Your task to perform on an android device: change keyboard looks Image 0: 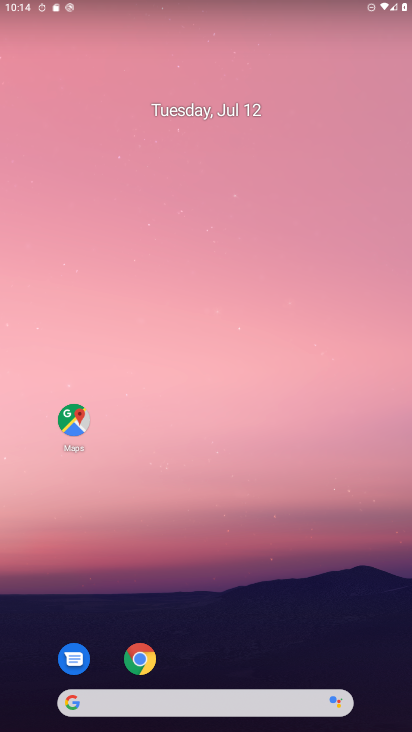
Step 0: drag from (197, 720) to (195, 91)
Your task to perform on an android device: change keyboard looks Image 1: 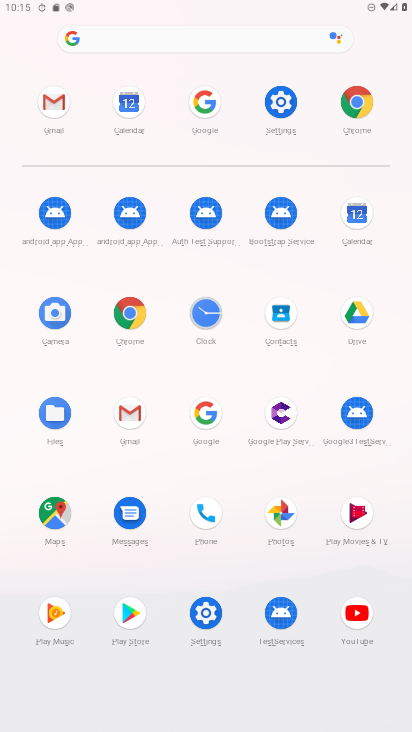
Step 1: click (198, 619)
Your task to perform on an android device: change keyboard looks Image 2: 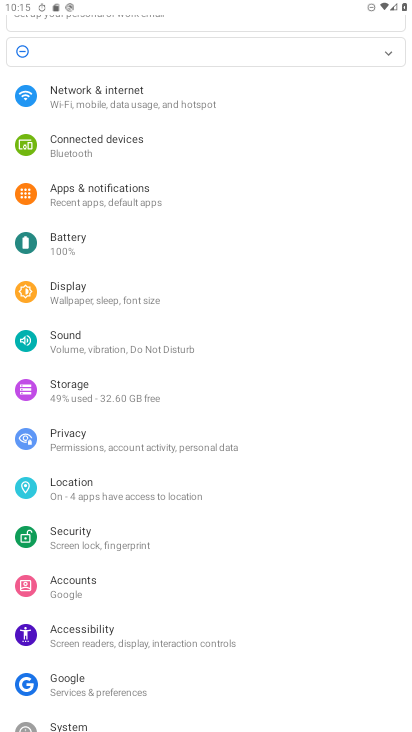
Step 2: click (75, 722)
Your task to perform on an android device: change keyboard looks Image 3: 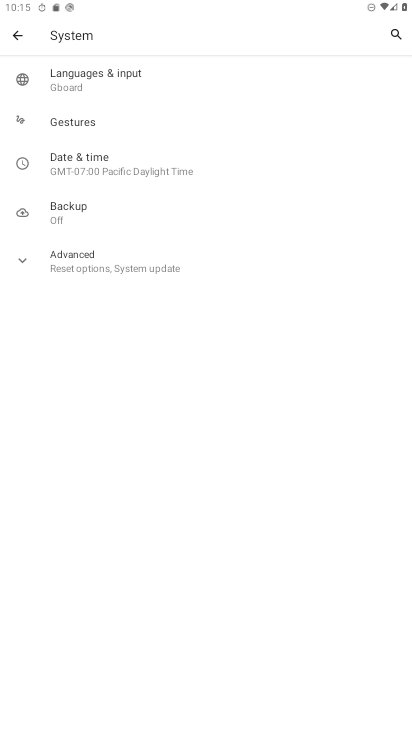
Step 3: click (76, 72)
Your task to perform on an android device: change keyboard looks Image 4: 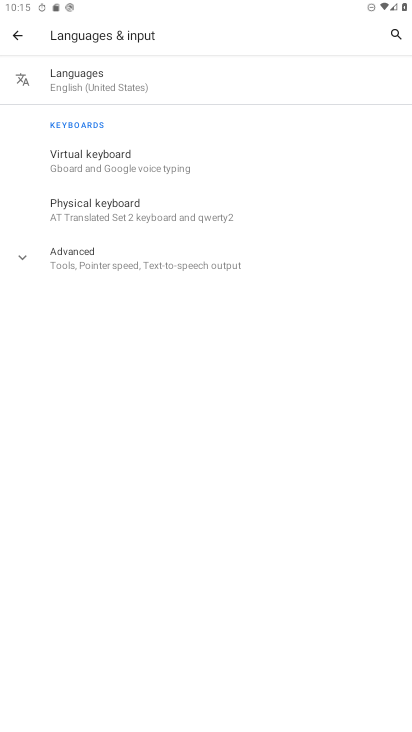
Step 4: click (100, 158)
Your task to perform on an android device: change keyboard looks Image 5: 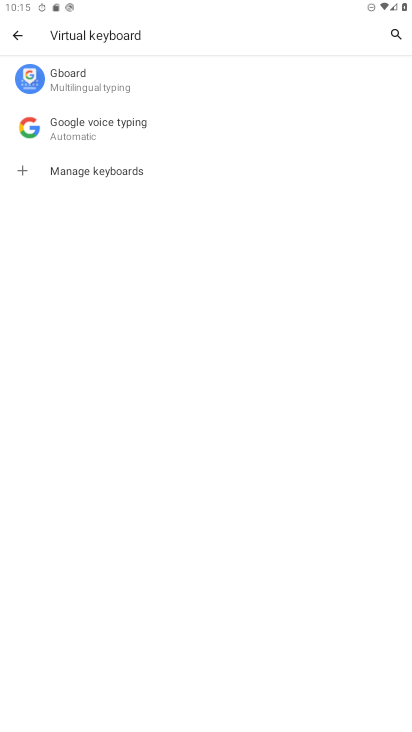
Step 5: click (69, 77)
Your task to perform on an android device: change keyboard looks Image 6: 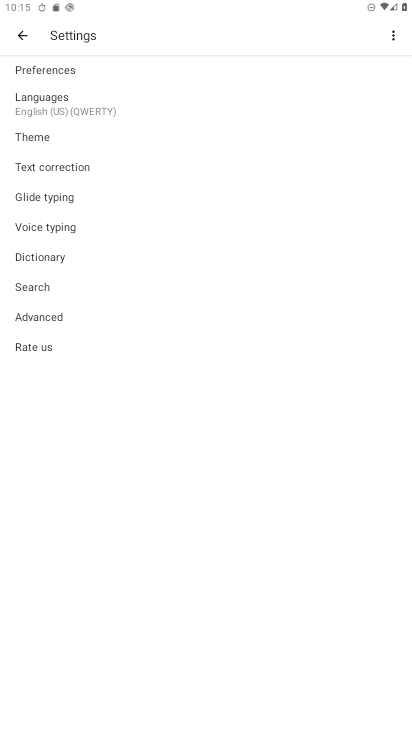
Step 6: click (29, 135)
Your task to perform on an android device: change keyboard looks Image 7: 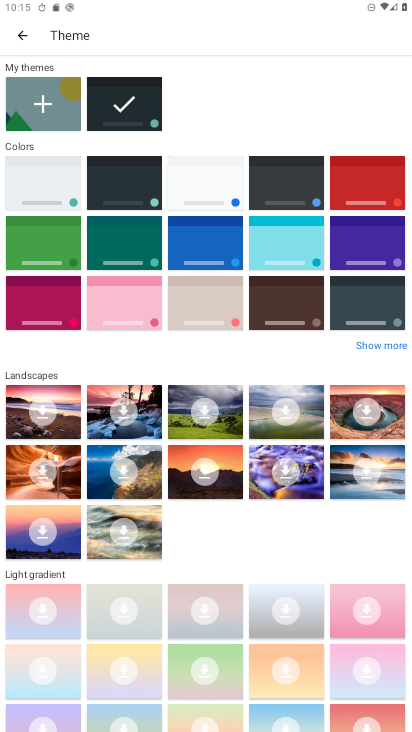
Step 7: click (216, 186)
Your task to perform on an android device: change keyboard looks Image 8: 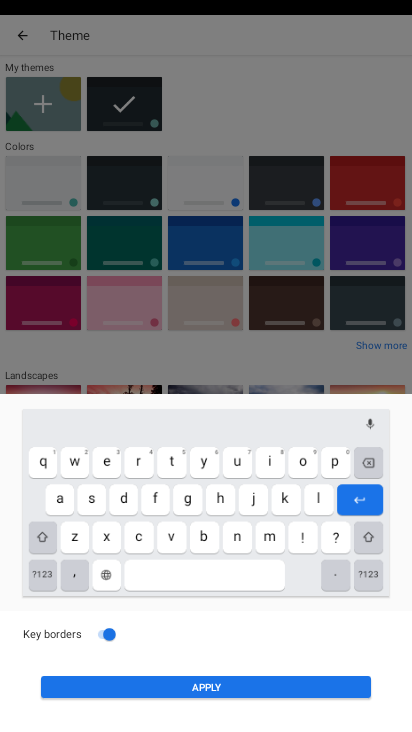
Step 8: click (211, 686)
Your task to perform on an android device: change keyboard looks Image 9: 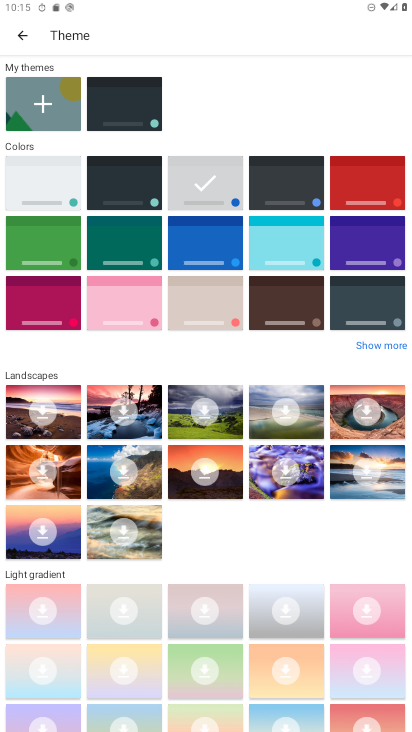
Step 9: task complete